Your task to perform on an android device: turn pop-ups on in chrome Image 0: 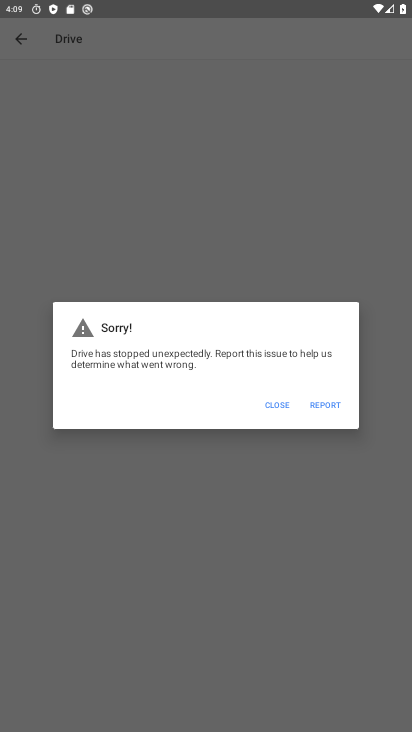
Step 0: press home button
Your task to perform on an android device: turn pop-ups on in chrome Image 1: 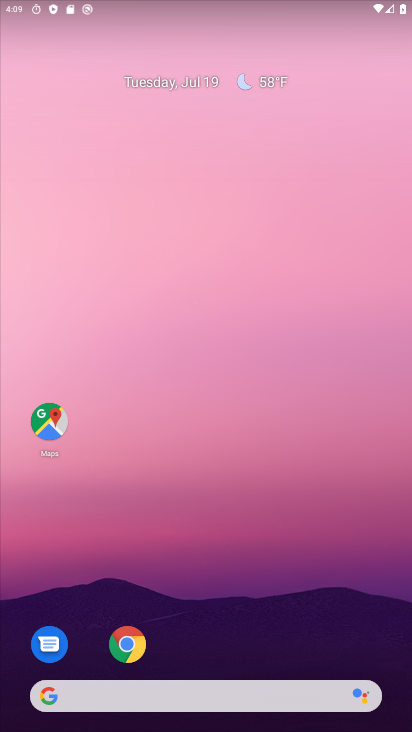
Step 1: drag from (276, 555) to (272, 141)
Your task to perform on an android device: turn pop-ups on in chrome Image 2: 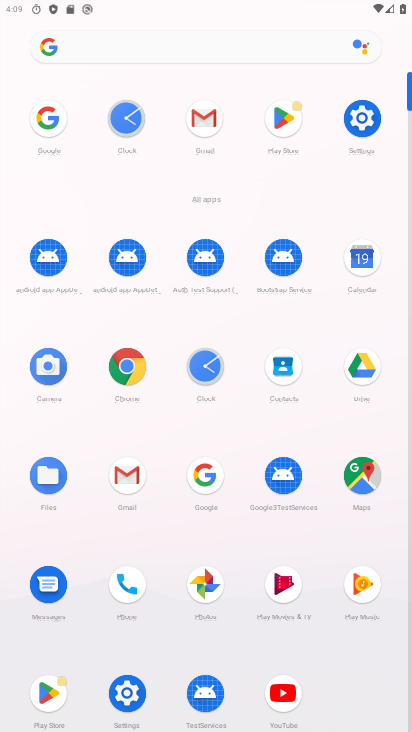
Step 2: click (132, 369)
Your task to perform on an android device: turn pop-ups on in chrome Image 3: 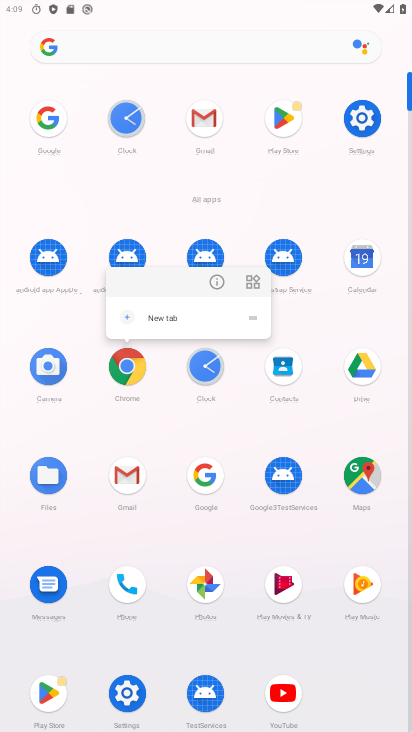
Step 3: click (119, 369)
Your task to perform on an android device: turn pop-ups on in chrome Image 4: 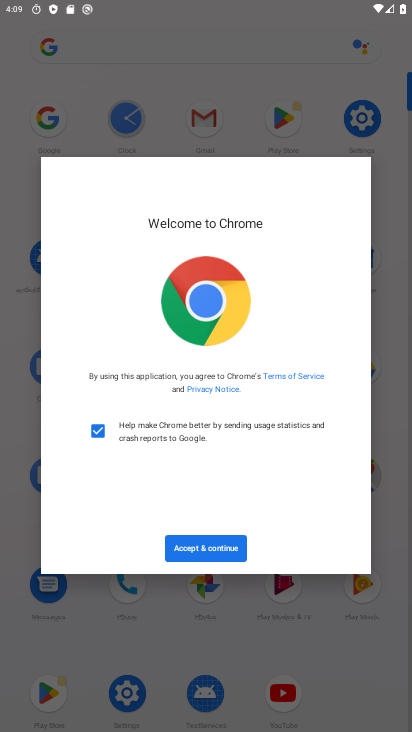
Step 4: click (211, 551)
Your task to perform on an android device: turn pop-ups on in chrome Image 5: 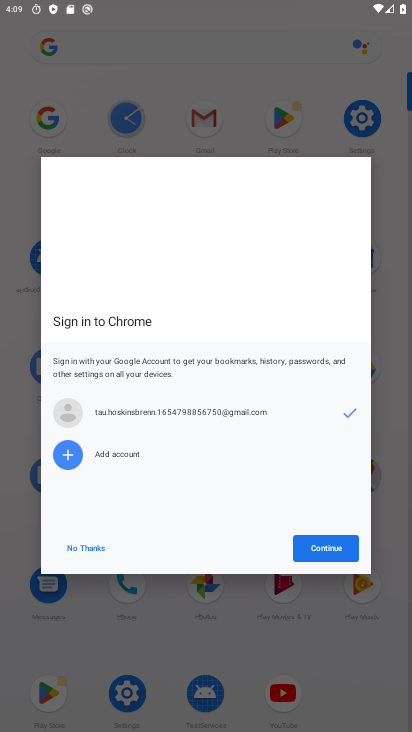
Step 5: click (316, 546)
Your task to perform on an android device: turn pop-ups on in chrome Image 6: 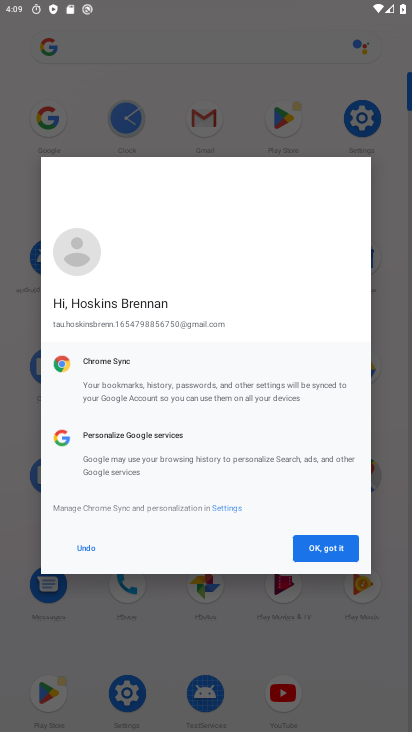
Step 6: click (319, 548)
Your task to perform on an android device: turn pop-ups on in chrome Image 7: 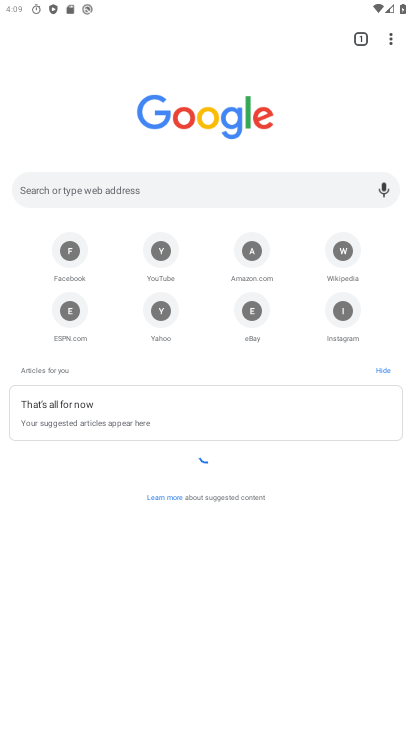
Step 7: drag from (394, 30) to (272, 334)
Your task to perform on an android device: turn pop-ups on in chrome Image 8: 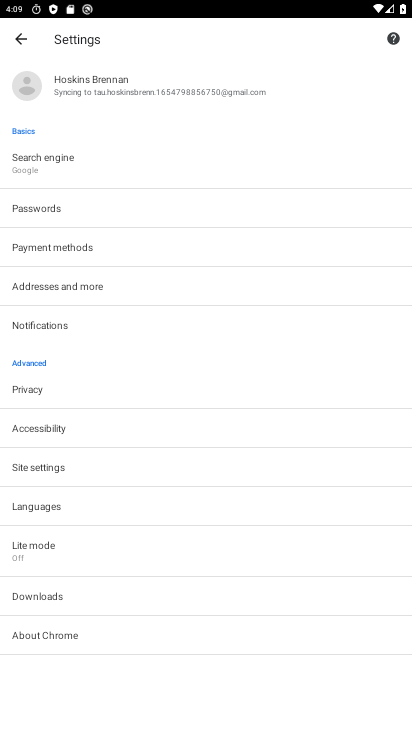
Step 8: click (55, 462)
Your task to perform on an android device: turn pop-ups on in chrome Image 9: 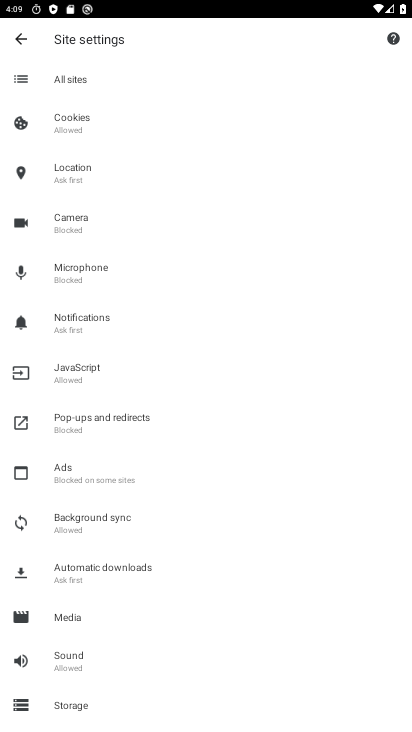
Step 9: click (78, 410)
Your task to perform on an android device: turn pop-ups on in chrome Image 10: 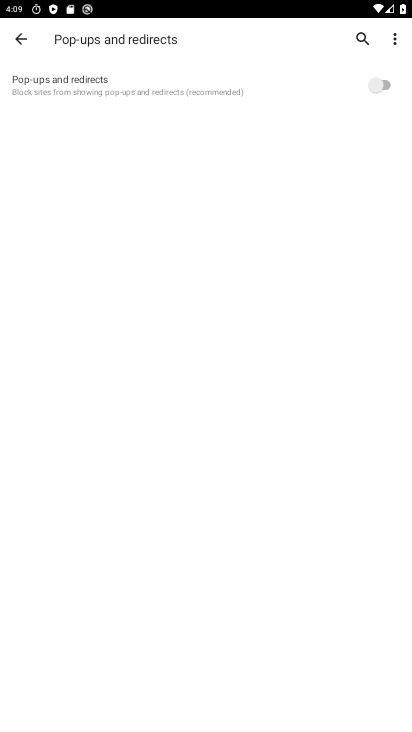
Step 10: click (384, 81)
Your task to perform on an android device: turn pop-ups on in chrome Image 11: 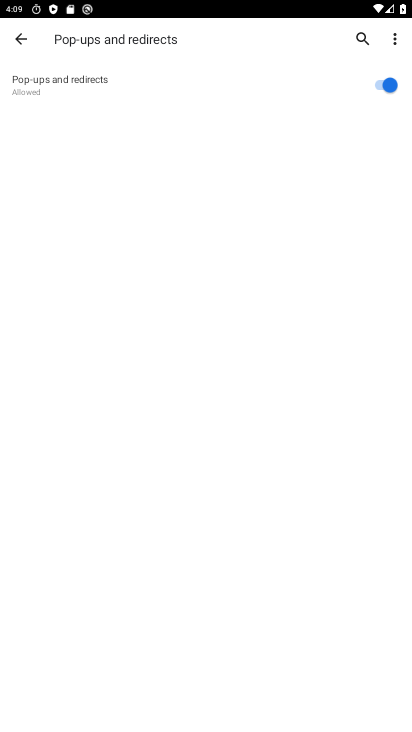
Step 11: task complete